Your task to perform on an android device: When is my next appointment? Image 0: 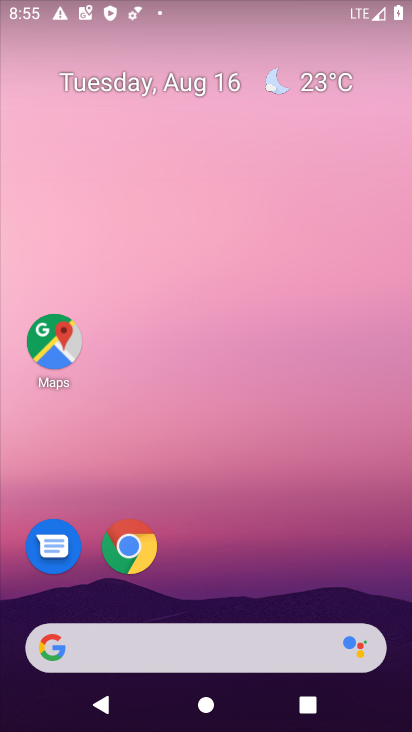
Step 0: drag from (237, 563) to (229, 38)
Your task to perform on an android device: When is my next appointment? Image 1: 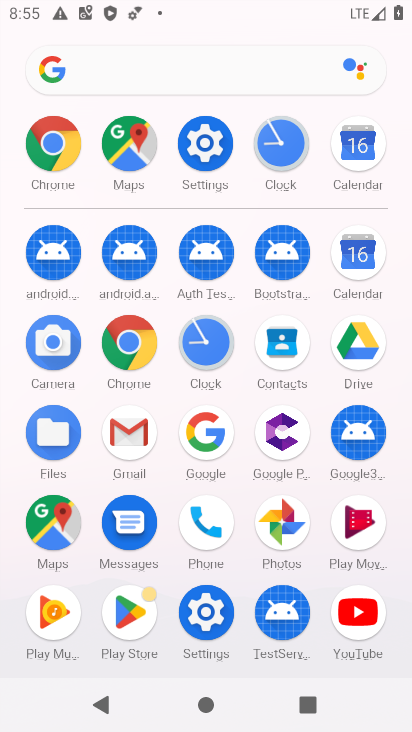
Step 1: click (352, 136)
Your task to perform on an android device: When is my next appointment? Image 2: 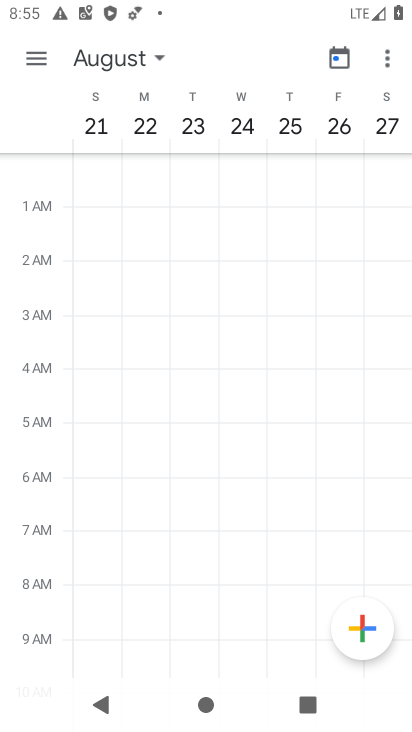
Step 2: drag from (107, 380) to (402, 355)
Your task to perform on an android device: When is my next appointment? Image 3: 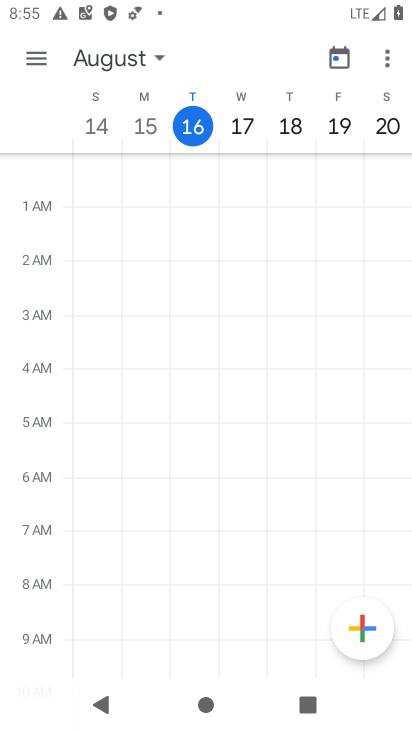
Step 3: click (195, 125)
Your task to perform on an android device: When is my next appointment? Image 4: 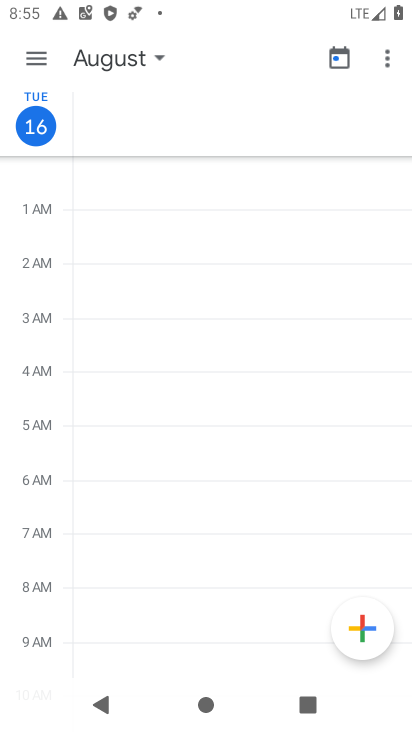
Step 4: click (36, 120)
Your task to perform on an android device: When is my next appointment? Image 5: 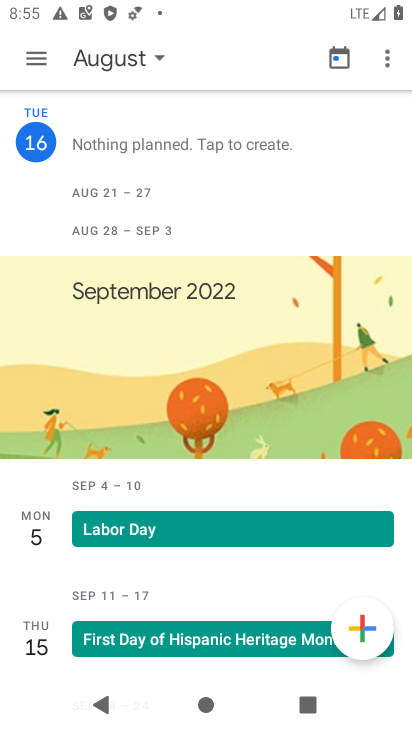
Step 5: task complete